Your task to perform on an android device: turn on javascript in the chrome app Image 0: 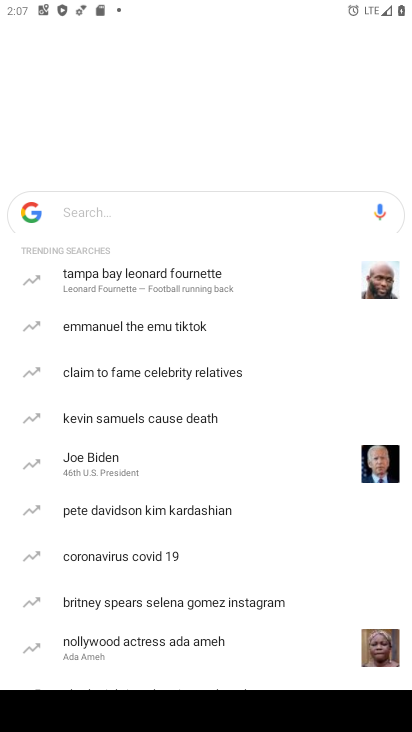
Step 0: press home button
Your task to perform on an android device: turn on javascript in the chrome app Image 1: 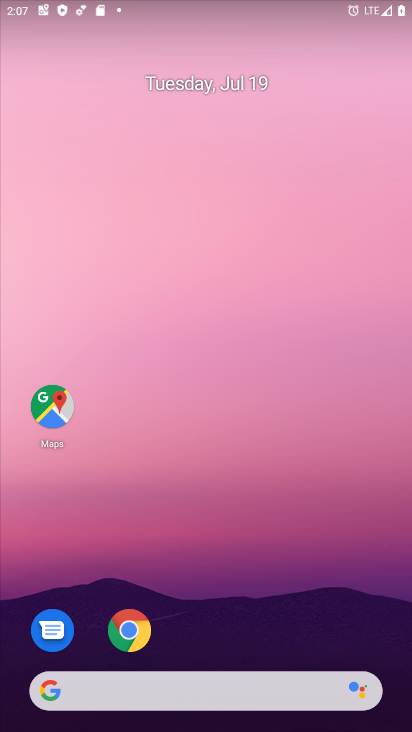
Step 1: click (127, 623)
Your task to perform on an android device: turn on javascript in the chrome app Image 2: 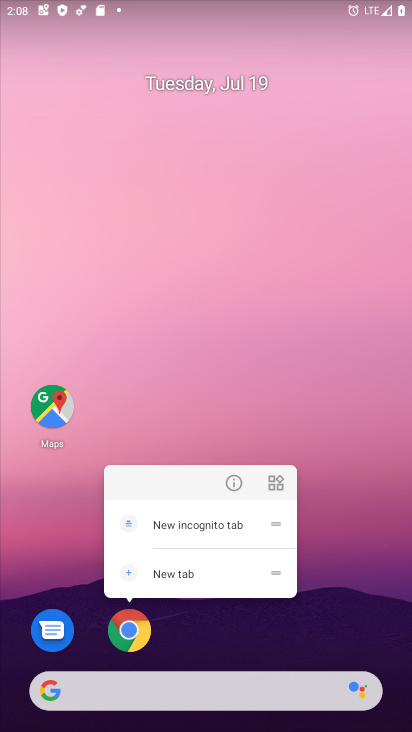
Step 2: click (124, 626)
Your task to perform on an android device: turn on javascript in the chrome app Image 3: 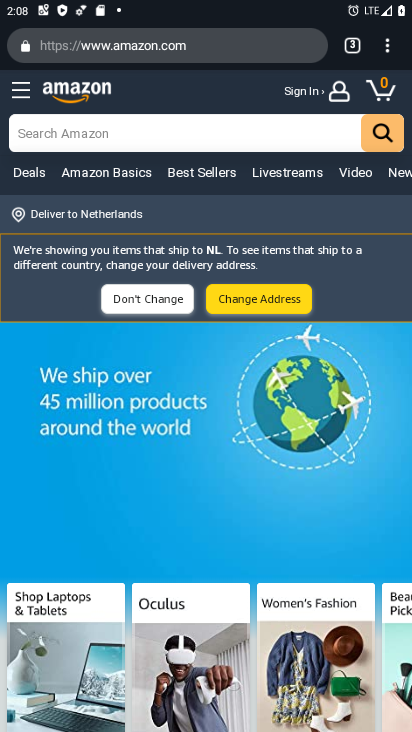
Step 3: click (384, 44)
Your task to perform on an android device: turn on javascript in the chrome app Image 4: 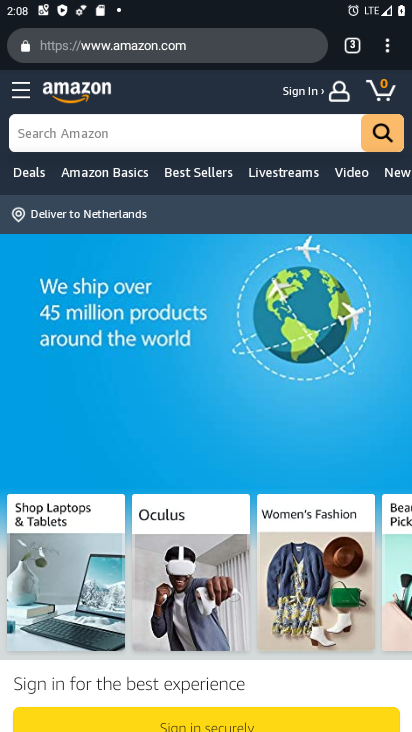
Step 4: click (384, 50)
Your task to perform on an android device: turn on javascript in the chrome app Image 5: 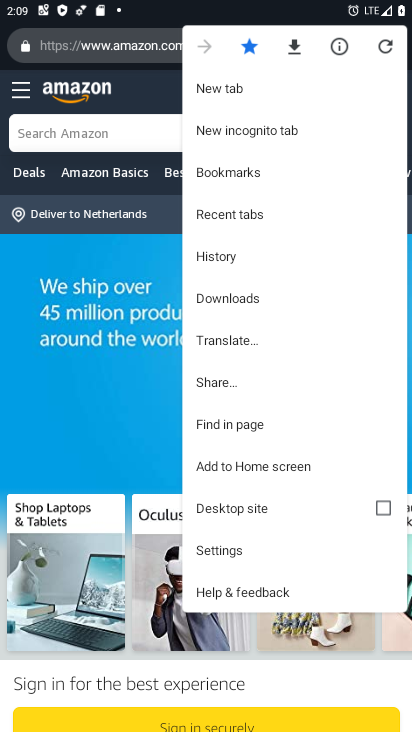
Step 5: click (244, 557)
Your task to perform on an android device: turn on javascript in the chrome app Image 6: 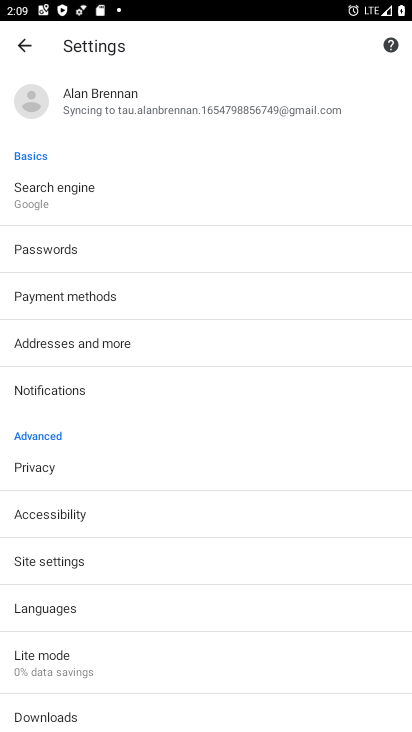
Step 6: click (121, 548)
Your task to perform on an android device: turn on javascript in the chrome app Image 7: 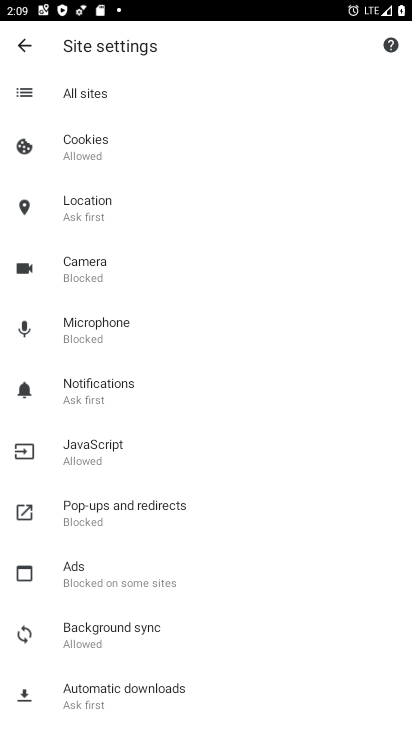
Step 7: click (140, 450)
Your task to perform on an android device: turn on javascript in the chrome app Image 8: 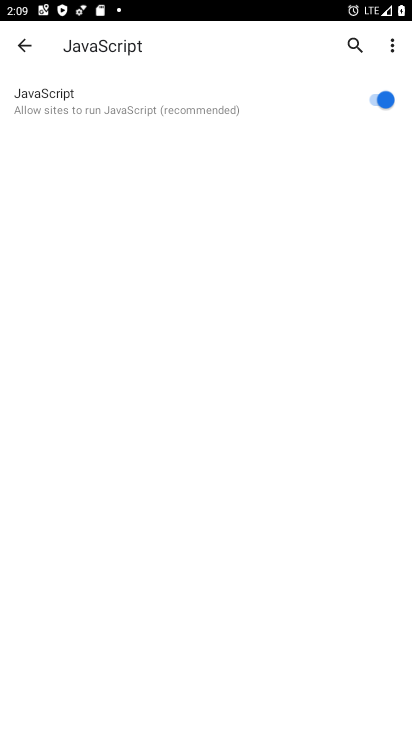
Step 8: task complete